Your task to perform on an android device: Open ESPN.com Image 0: 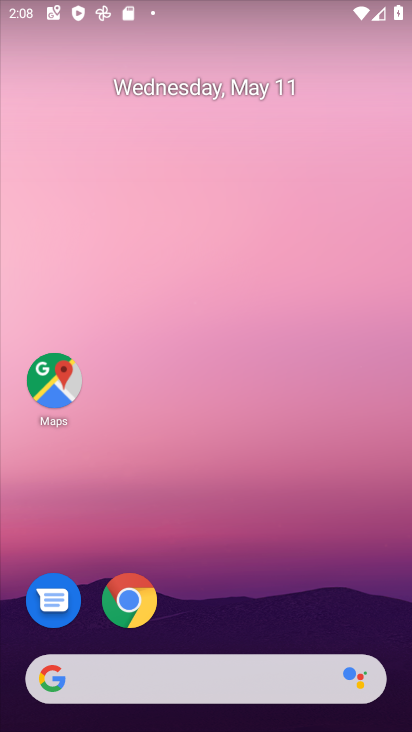
Step 0: click (180, 669)
Your task to perform on an android device: Open ESPN.com Image 1: 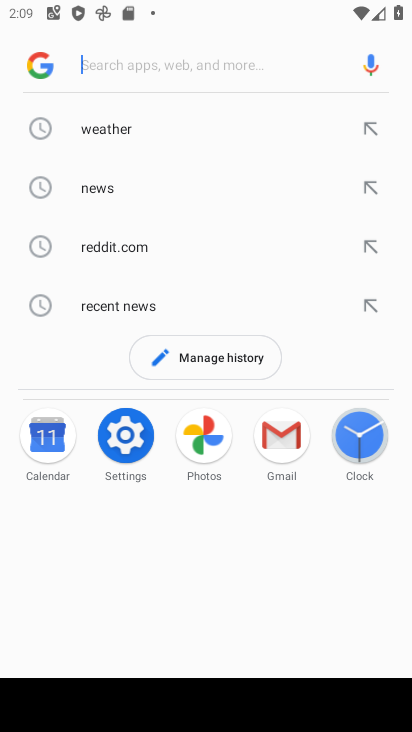
Step 1: type "espn.com"
Your task to perform on an android device: Open ESPN.com Image 2: 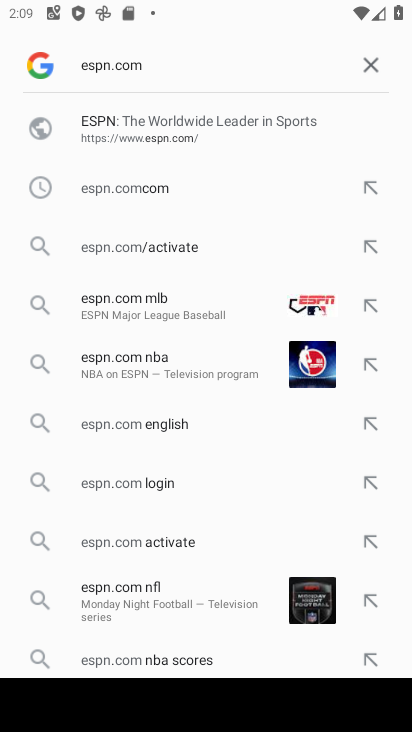
Step 2: click (95, 124)
Your task to perform on an android device: Open ESPN.com Image 3: 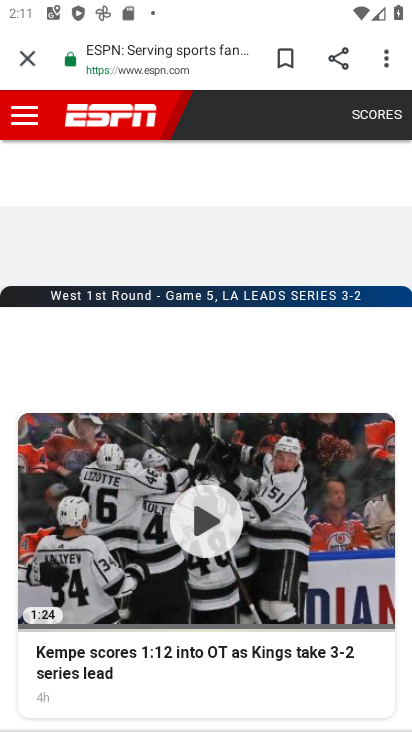
Step 3: task complete